Your task to perform on an android device: turn on javascript in the chrome app Image 0: 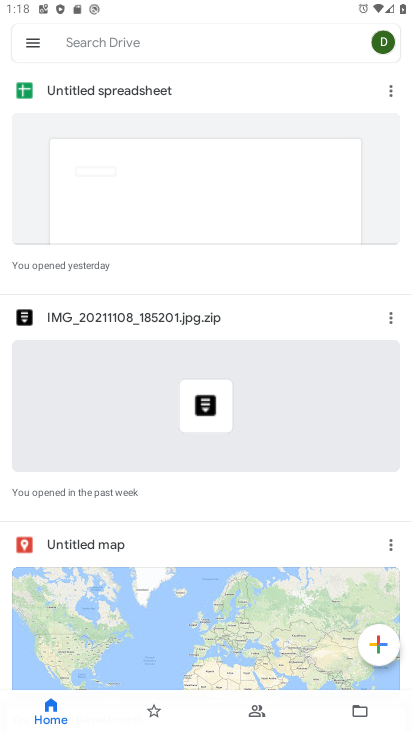
Step 0: press back button
Your task to perform on an android device: turn on javascript in the chrome app Image 1: 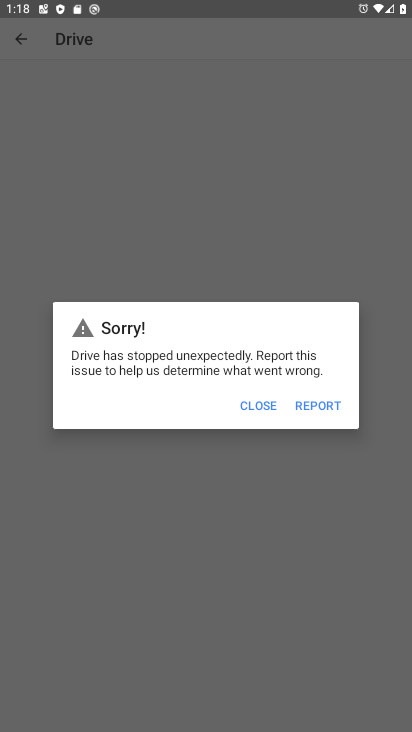
Step 1: press back button
Your task to perform on an android device: turn on javascript in the chrome app Image 2: 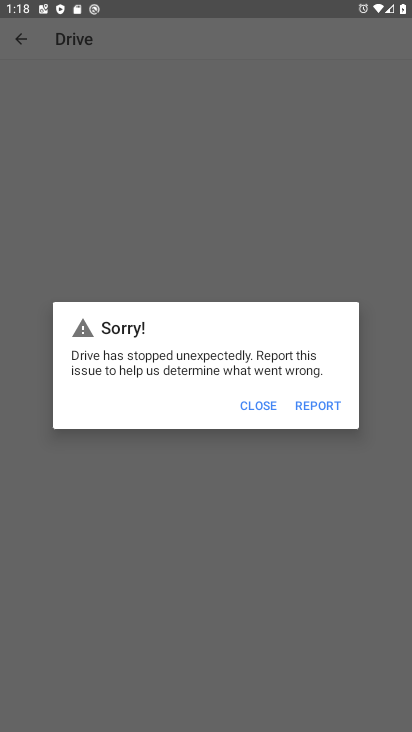
Step 2: drag from (283, 379) to (252, 37)
Your task to perform on an android device: turn on javascript in the chrome app Image 3: 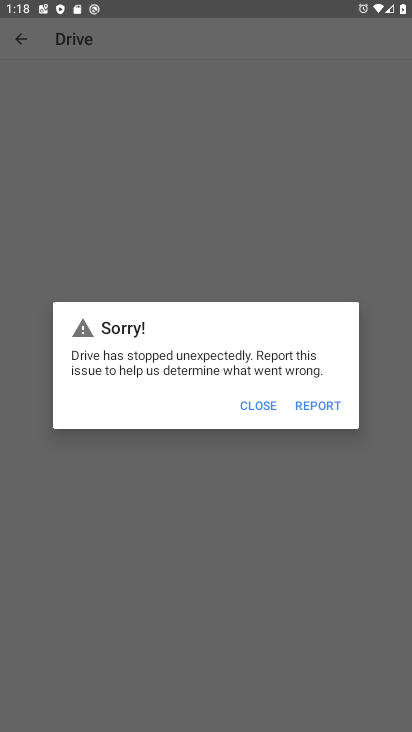
Step 3: drag from (265, 377) to (207, 148)
Your task to perform on an android device: turn on javascript in the chrome app Image 4: 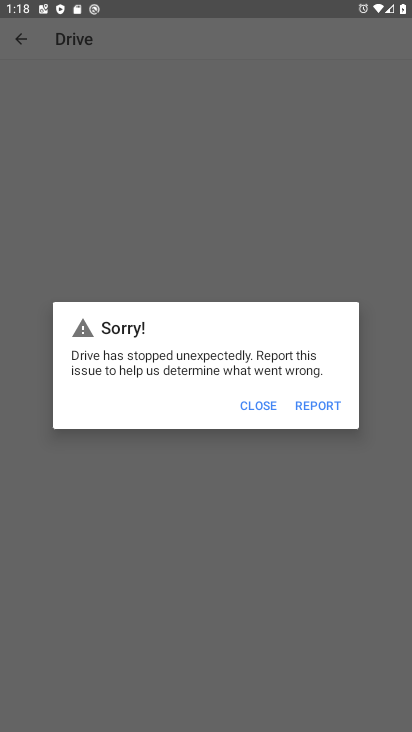
Step 4: drag from (246, 502) to (196, 9)
Your task to perform on an android device: turn on javascript in the chrome app Image 5: 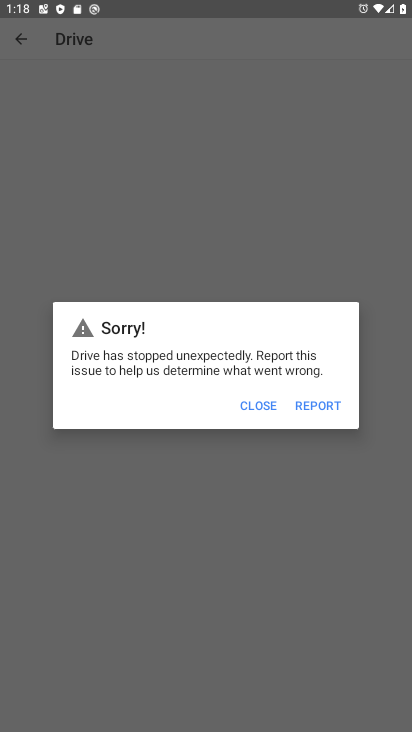
Step 5: drag from (322, 474) to (272, 2)
Your task to perform on an android device: turn on javascript in the chrome app Image 6: 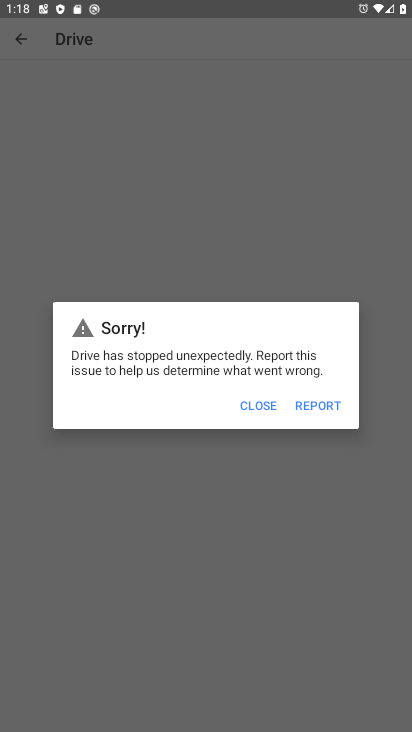
Step 6: drag from (345, 521) to (198, 7)
Your task to perform on an android device: turn on javascript in the chrome app Image 7: 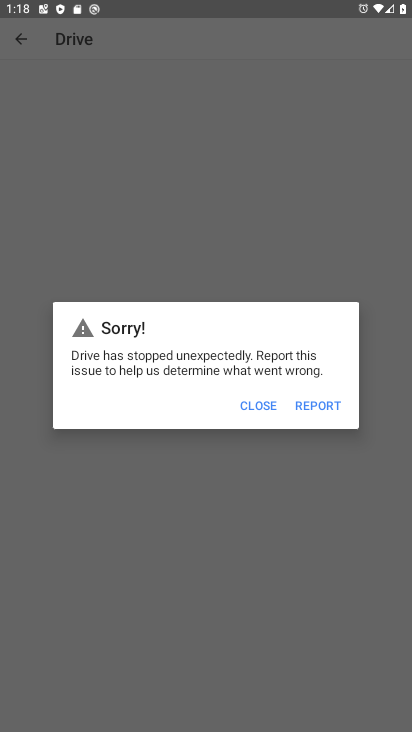
Step 7: drag from (254, 552) to (129, 73)
Your task to perform on an android device: turn on javascript in the chrome app Image 8: 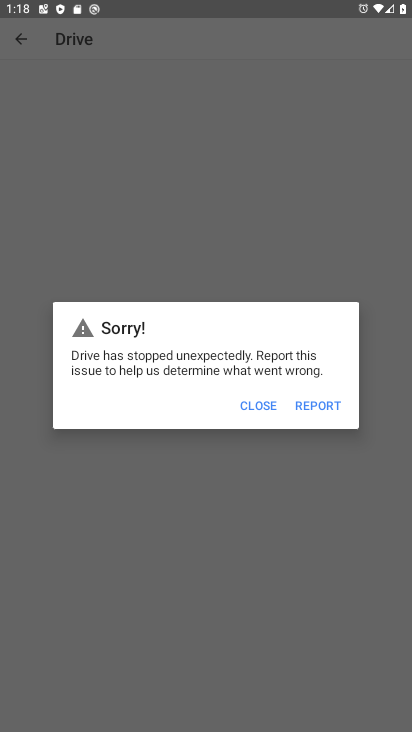
Step 8: click (248, 408)
Your task to perform on an android device: turn on javascript in the chrome app Image 9: 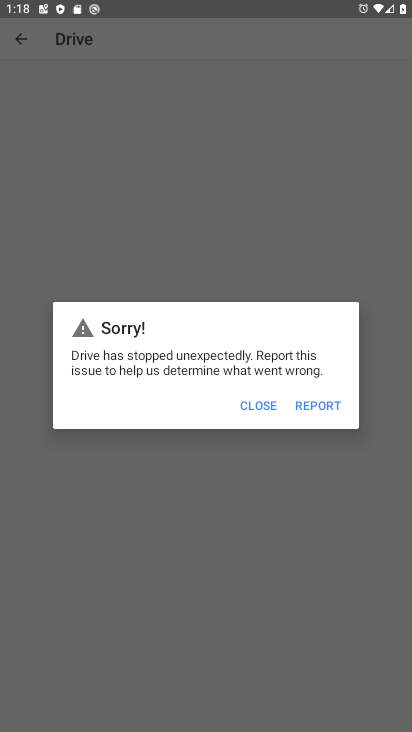
Step 9: click (248, 408)
Your task to perform on an android device: turn on javascript in the chrome app Image 10: 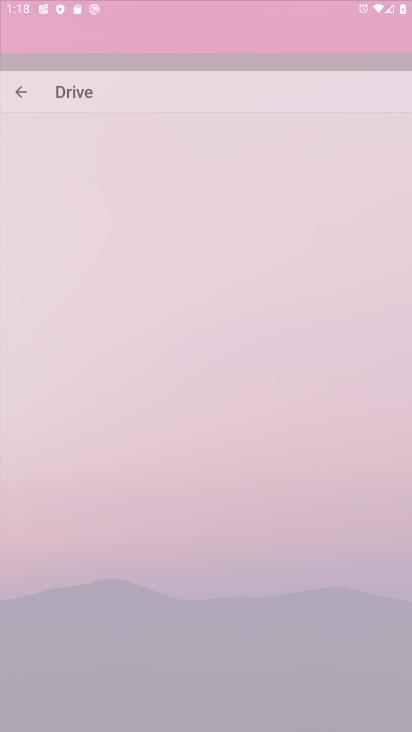
Step 10: click (249, 408)
Your task to perform on an android device: turn on javascript in the chrome app Image 11: 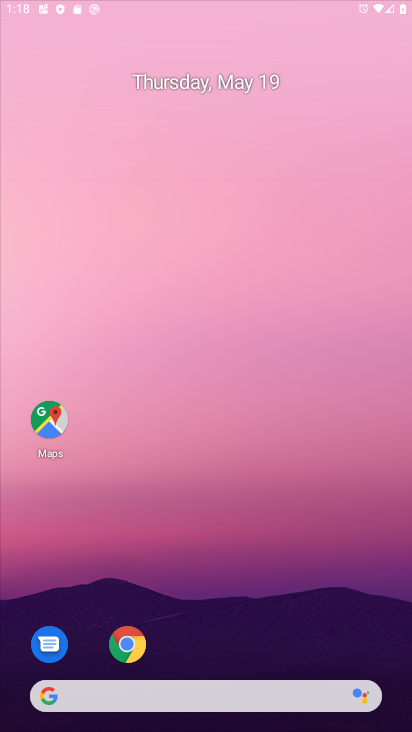
Step 11: click (249, 408)
Your task to perform on an android device: turn on javascript in the chrome app Image 12: 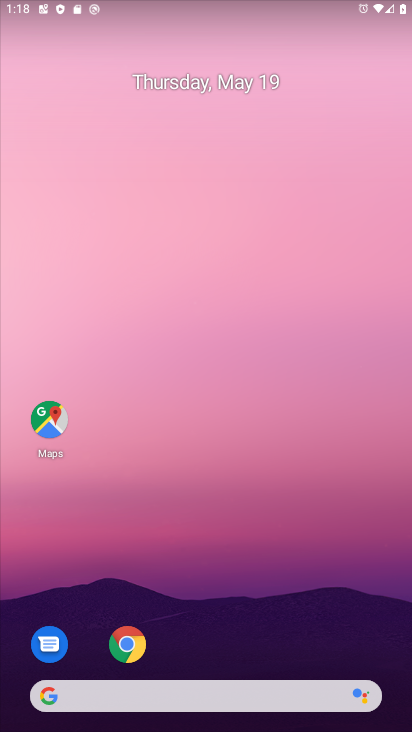
Step 12: drag from (232, 495) to (178, 7)
Your task to perform on an android device: turn on javascript in the chrome app Image 13: 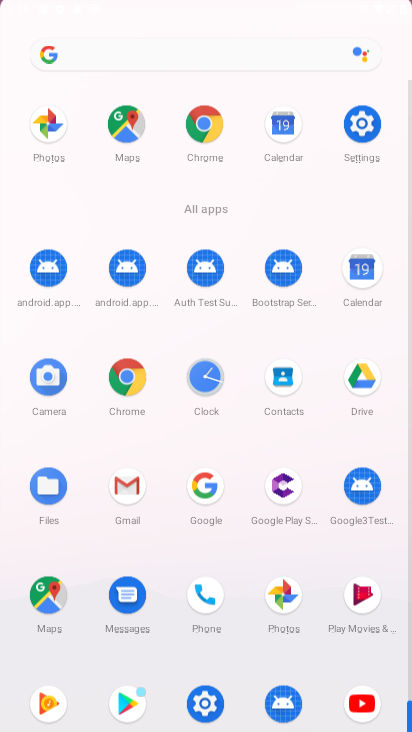
Step 13: drag from (267, 479) to (172, 11)
Your task to perform on an android device: turn on javascript in the chrome app Image 14: 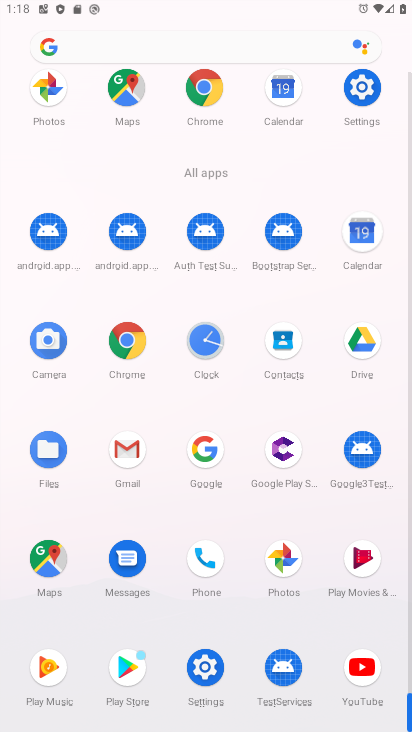
Step 14: click (362, 97)
Your task to perform on an android device: turn on javascript in the chrome app Image 15: 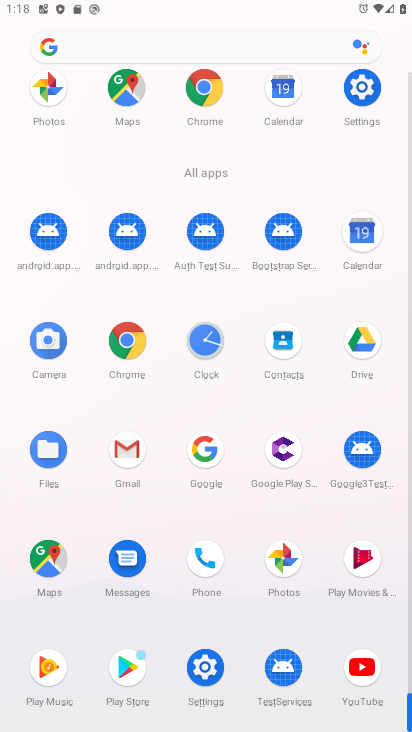
Step 15: click (361, 98)
Your task to perform on an android device: turn on javascript in the chrome app Image 16: 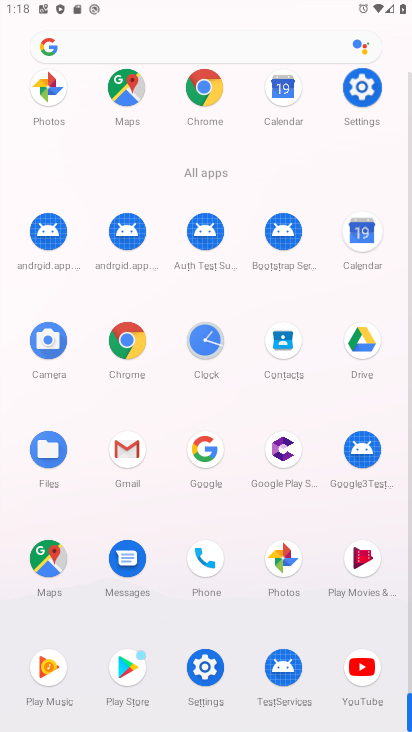
Step 16: click (363, 103)
Your task to perform on an android device: turn on javascript in the chrome app Image 17: 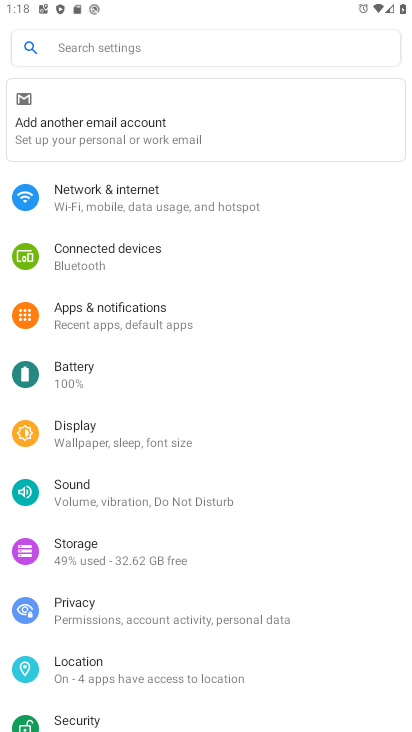
Step 17: drag from (89, 300) to (59, 74)
Your task to perform on an android device: turn on javascript in the chrome app Image 18: 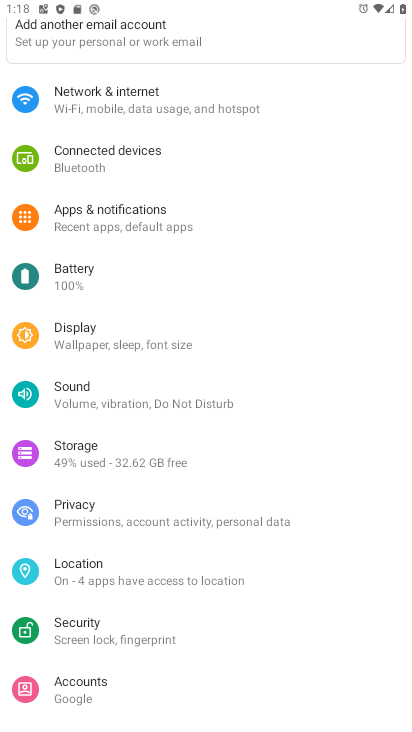
Step 18: drag from (181, 404) to (188, 124)
Your task to perform on an android device: turn on javascript in the chrome app Image 19: 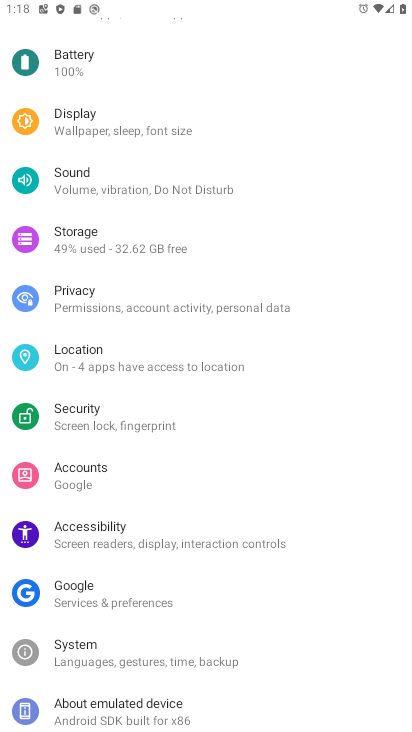
Step 19: press home button
Your task to perform on an android device: turn on javascript in the chrome app Image 20: 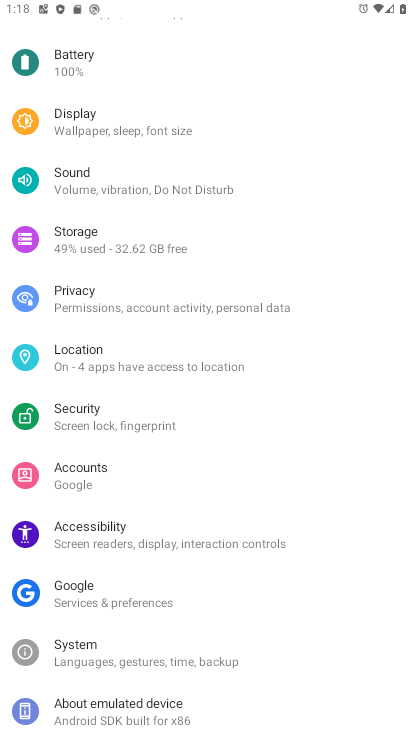
Step 20: press home button
Your task to perform on an android device: turn on javascript in the chrome app Image 21: 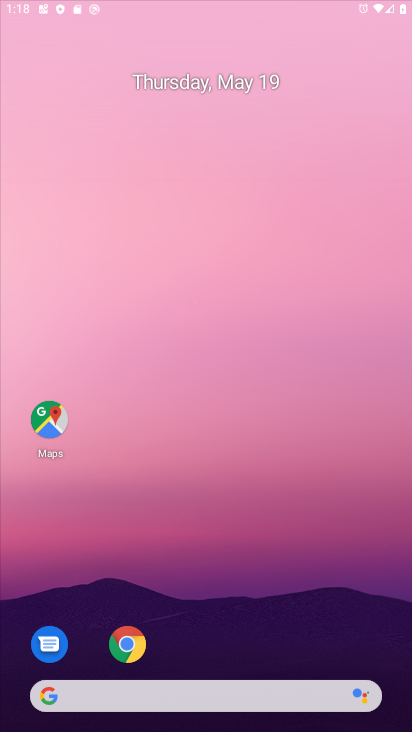
Step 21: press home button
Your task to perform on an android device: turn on javascript in the chrome app Image 22: 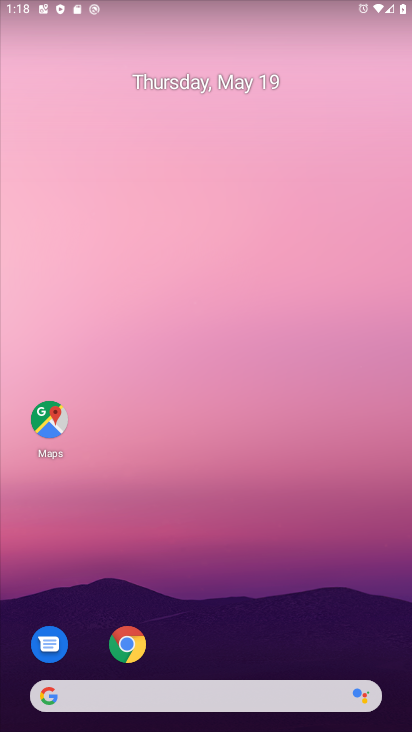
Step 22: drag from (211, 545) to (114, 47)
Your task to perform on an android device: turn on javascript in the chrome app Image 23: 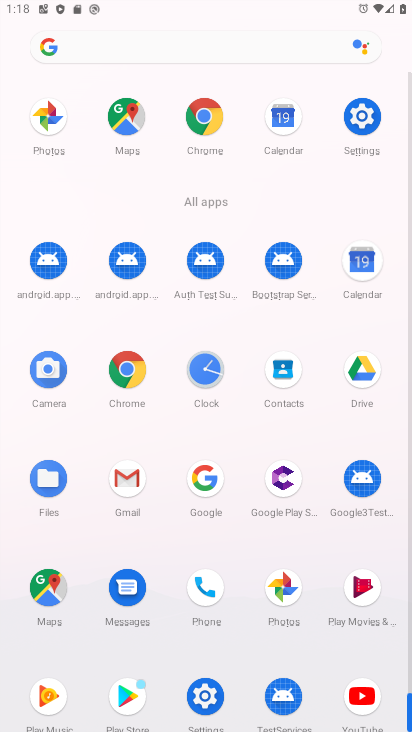
Step 23: click (198, 116)
Your task to perform on an android device: turn on javascript in the chrome app Image 24: 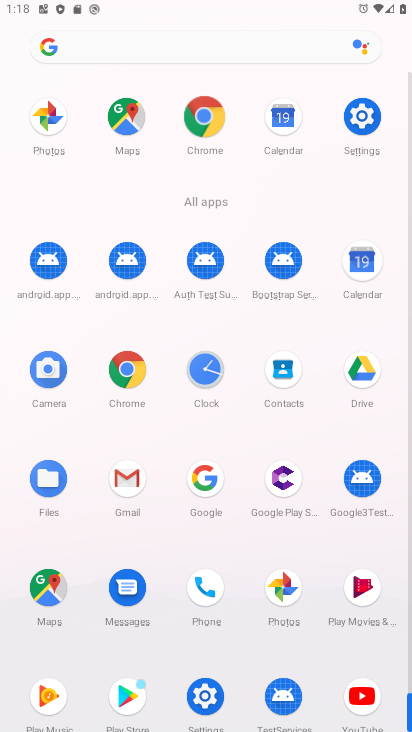
Step 24: click (198, 116)
Your task to perform on an android device: turn on javascript in the chrome app Image 25: 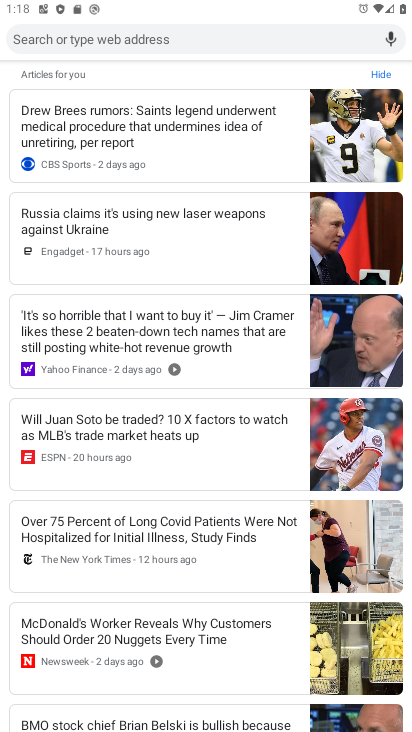
Step 25: click (201, 119)
Your task to perform on an android device: turn on javascript in the chrome app Image 26: 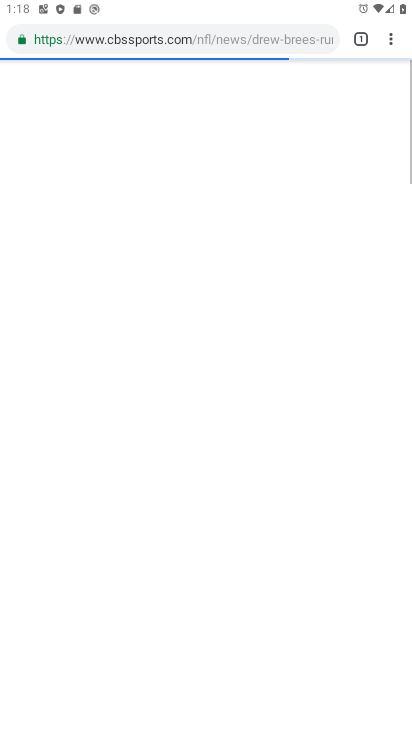
Step 26: drag from (131, 218) to (199, 530)
Your task to perform on an android device: turn on javascript in the chrome app Image 27: 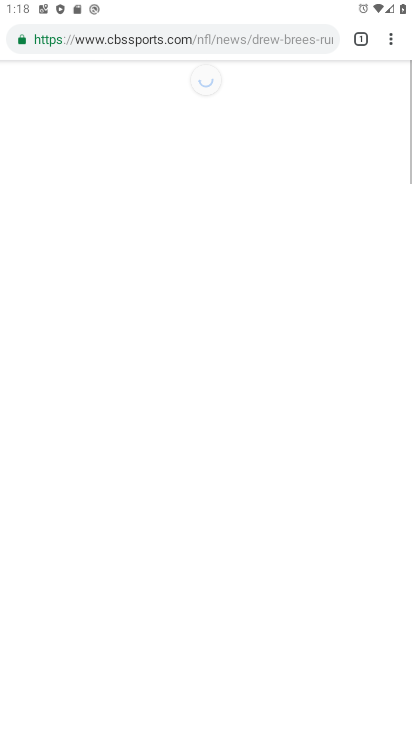
Step 27: drag from (107, 181) to (214, 531)
Your task to perform on an android device: turn on javascript in the chrome app Image 28: 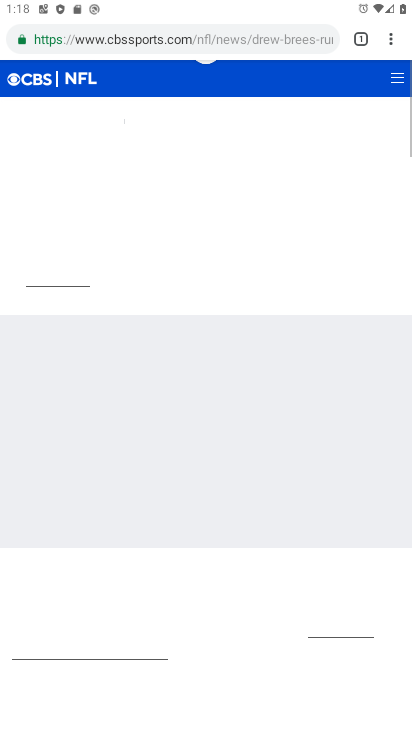
Step 28: drag from (154, 259) to (200, 553)
Your task to perform on an android device: turn on javascript in the chrome app Image 29: 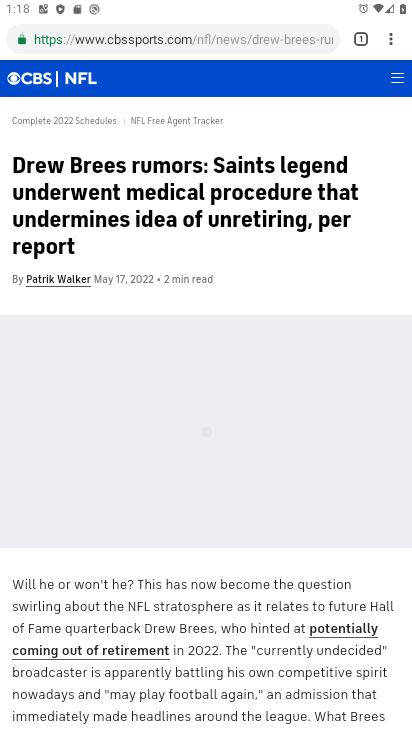
Step 29: drag from (138, 275) to (215, 551)
Your task to perform on an android device: turn on javascript in the chrome app Image 30: 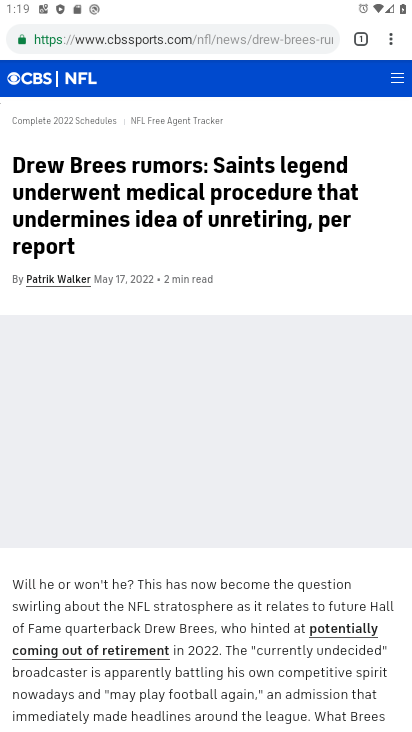
Step 30: drag from (179, 228) to (232, 533)
Your task to perform on an android device: turn on javascript in the chrome app Image 31: 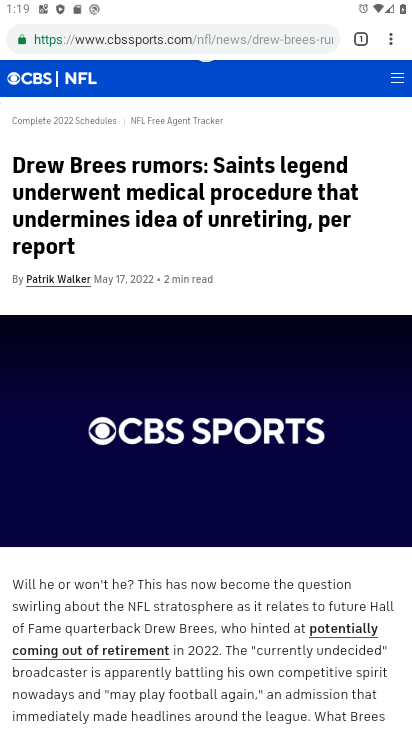
Step 31: drag from (178, 319) to (211, 476)
Your task to perform on an android device: turn on javascript in the chrome app Image 32: 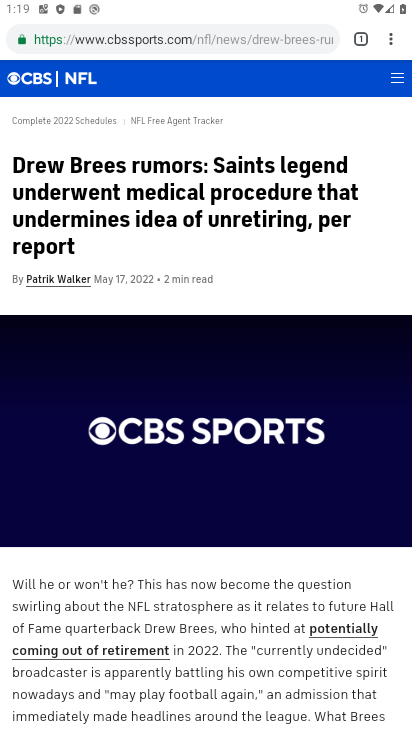
Step 32: drag from (116, 188) to (167, 512)
Your task to perform on an android device: turn on javascript in the chrome app Image 33: 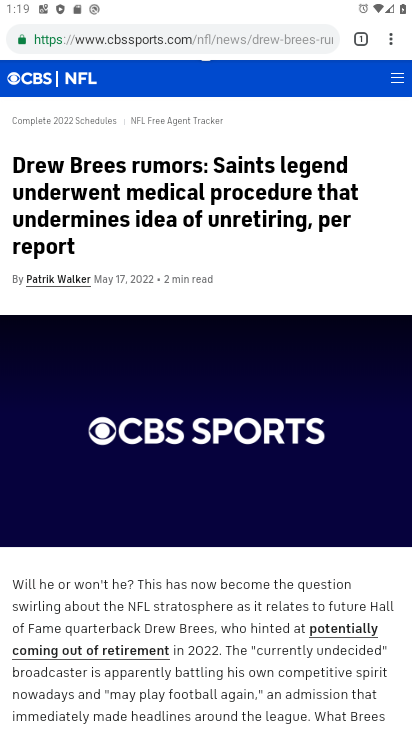
Step 33: drag from (225, 564) to (197, 479)
Your task to perform on an android device: turn on javascript in the chrome app Image 34: 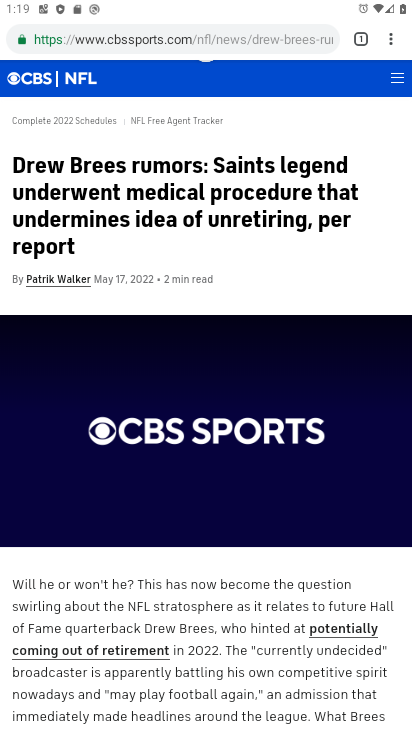
Step 34: drag from (135, 246) to (199, 474)
Your task to perform on an android device: turn on javascript in the chrome app Image 35: 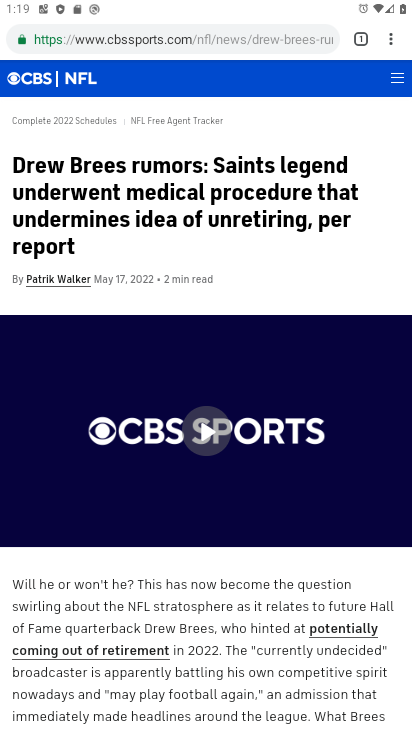
Step 35: drag from (220, 402) to (254, 519)
Your task to perform on an android device: turn on javascript in the chrome app Image 36: 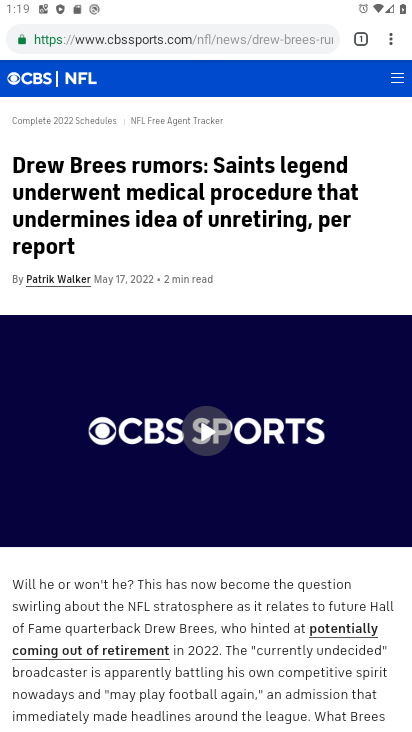
Step 36: drag from (197, 163) to (191, 464)
Your task to perform on an android device: turn on javascript in the chrome app Image 37: 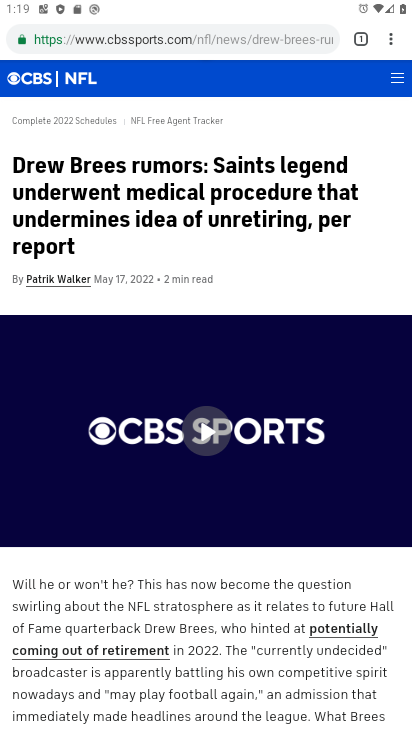
Step 37: drag from (284, 526) to (248, 434)
Your task to perform on an android device: turn on javascript in the chrome app Image 38: 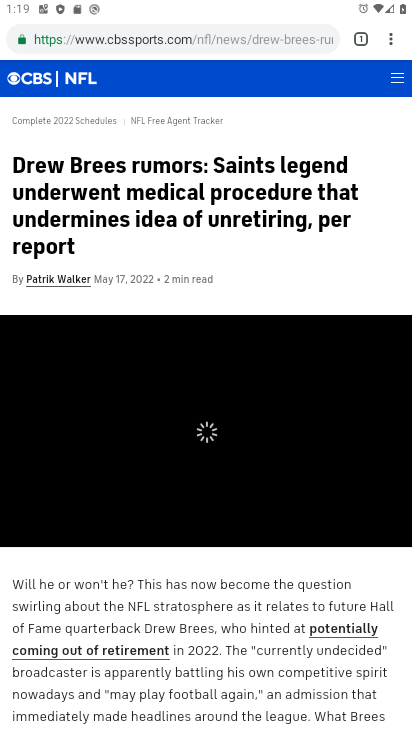
Step 38: drag from (175, 344) to (216, 464)
Your task to perform on an android device: turn on javascript in the chrome app Image 39: 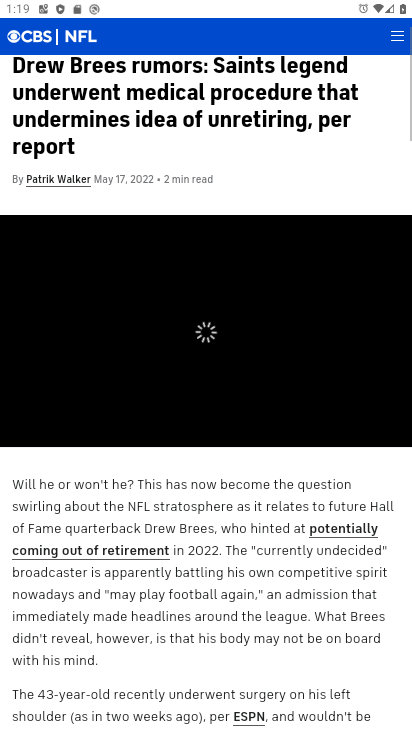
Step 39: drag from (206, 192) to (285, 486)
Your task to perform on an android device: turn on javascript in the chrome app Image 40: 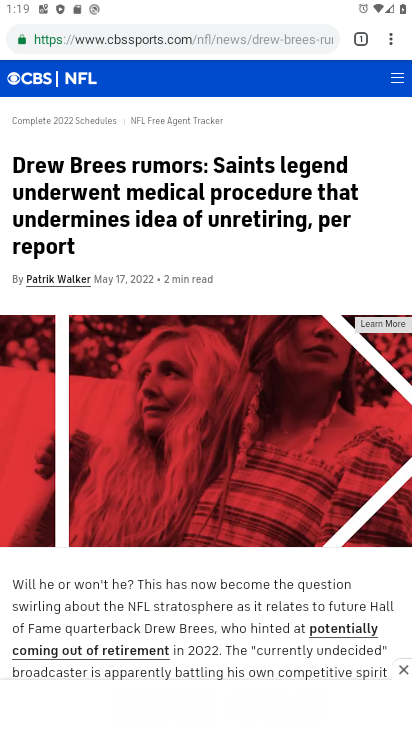
Step 40: press back button
Your task to perform on an android device: turn on javascript in the chrome app Image 41: 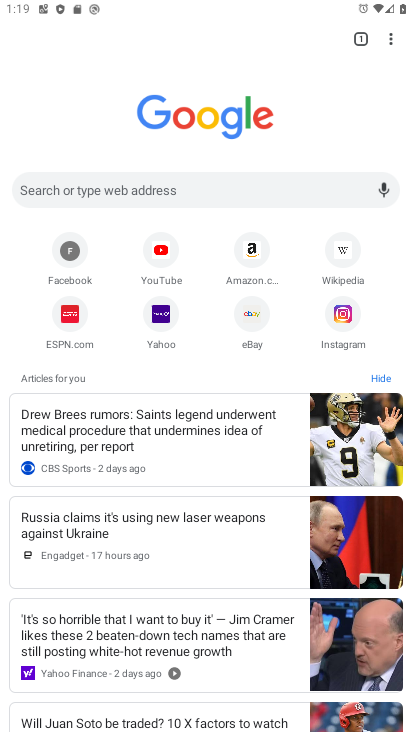
Step 41: drag from (390, 46) to (250, 323)
Your task to perform on an android device: turn on javascript in the chrome app Image 42: 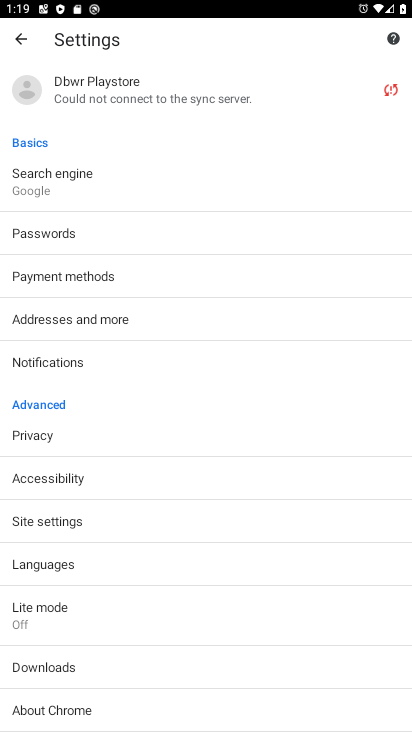
Step 42: click (39, 521)
Your task to perform on an android device: turn on javascript in the chrome app Image 43: 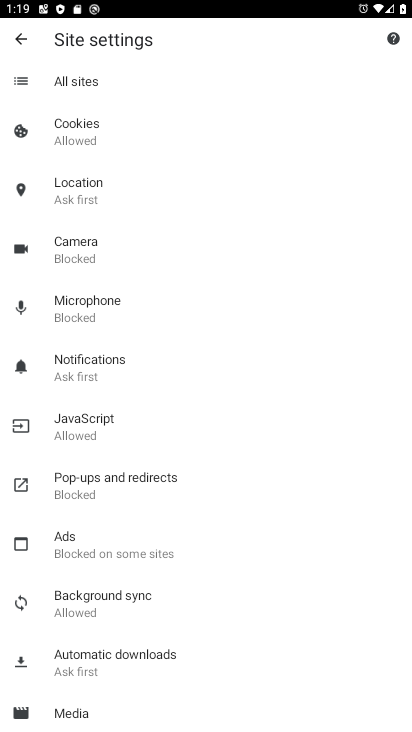
Step 43: click (76, 430)
Your task to perform on an android device: turn on javascript in the chrome app Image 44: 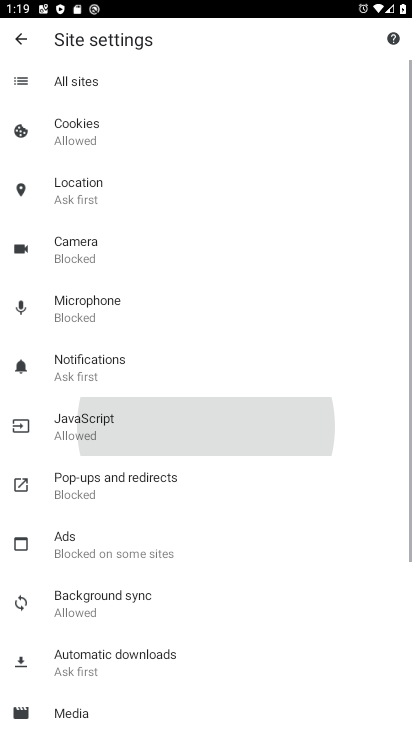
Step 44: click (76, 430)
Your task to perform on an android device: turn on javascript in the chrome app Image 45: 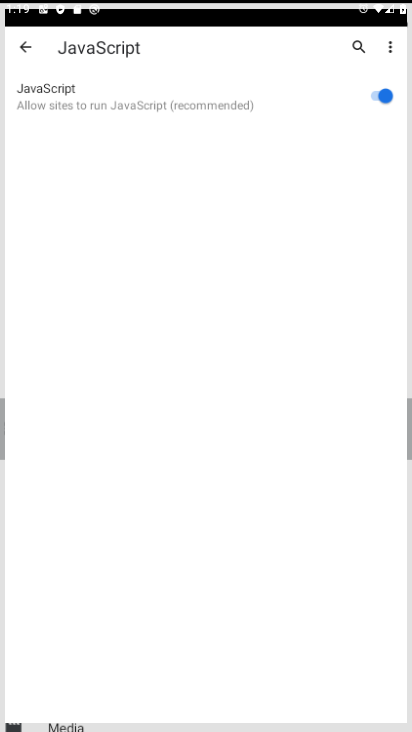
Step 45: click (76, 430)
Your task to perform on an android device: turn on javascript in the chrome app Image 46: 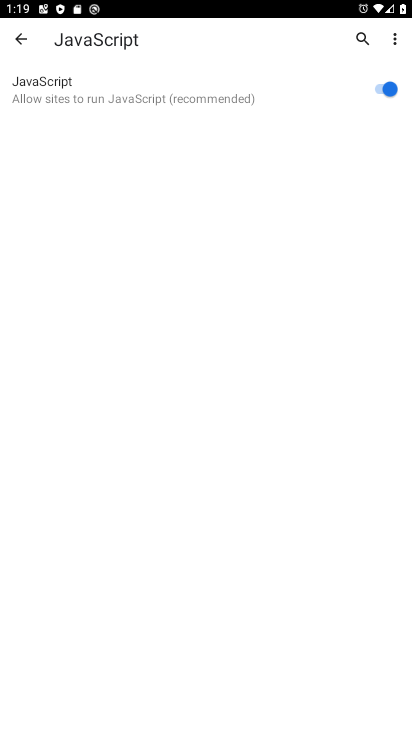
Step 46: click (76, 430)
Your task to perform on an android device: turn on javascript in the chrome app Image 47: 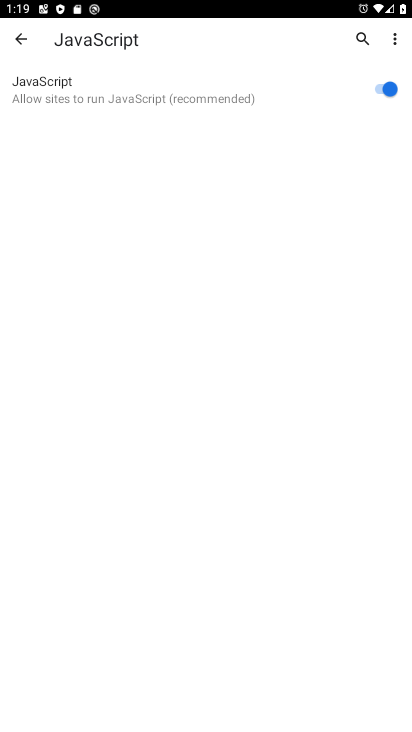
Step 47: click (80, 431)
Your task to perform on an android device: turn on javascript in the chrome app Image 48: 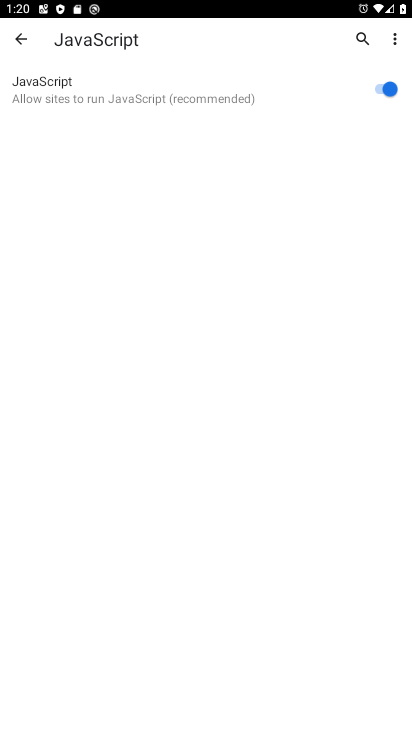
Step 48: click (15, 35)
Your task to perform on an android device: turn on javascript in the chrome app Image 49: 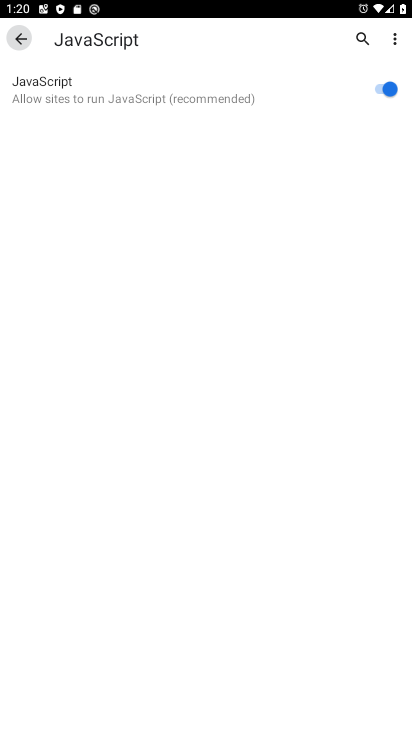
Step 49: click (15, 36)
Your task to perform on an android device: turn on javascript in the chrome app Image 50: 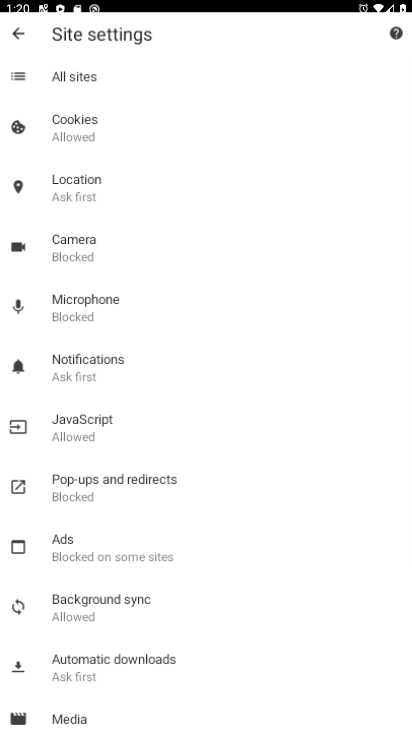
Step 50: click (15, 36)
Your task to perform on an android device: turn on javascript in the chrome app Image 51: 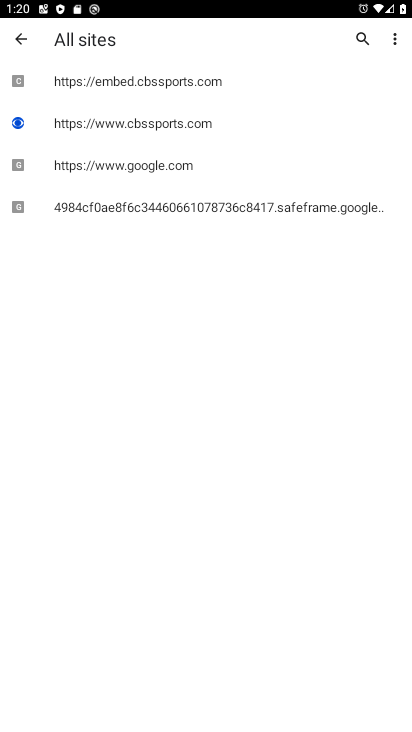
Step 51: click (8, 18)
Your task to perform on an android device: turn on javascript in the chrome app Image 52: 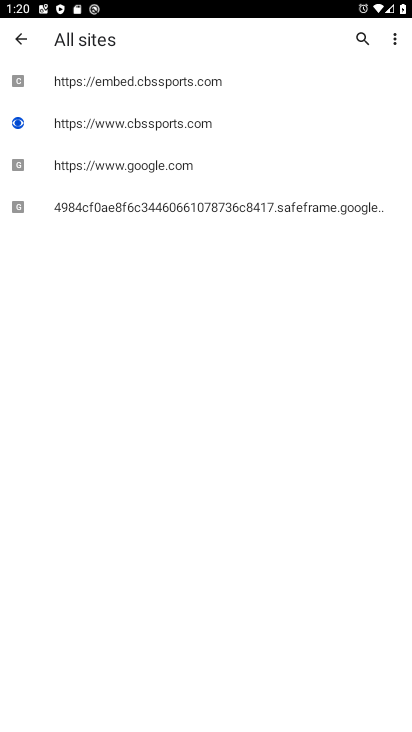
Step 52: click (18, 34)
Your task to perform on an android device: turn on javascript in the chrome app Image 53: 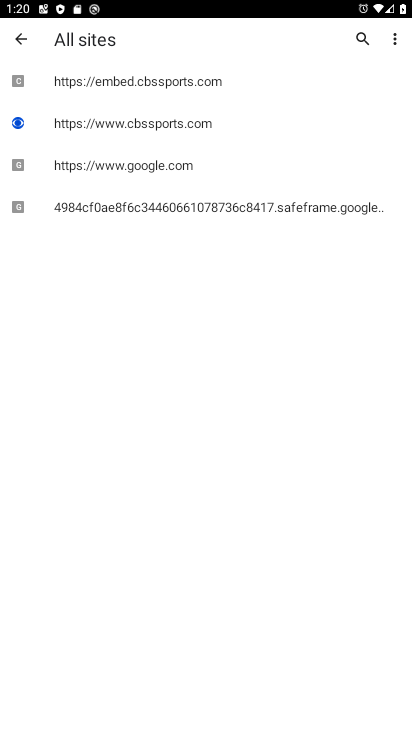
Step 53: click (18, 38)
Your task to perform on an android device: turn on javascript in the chrome app Image 54: 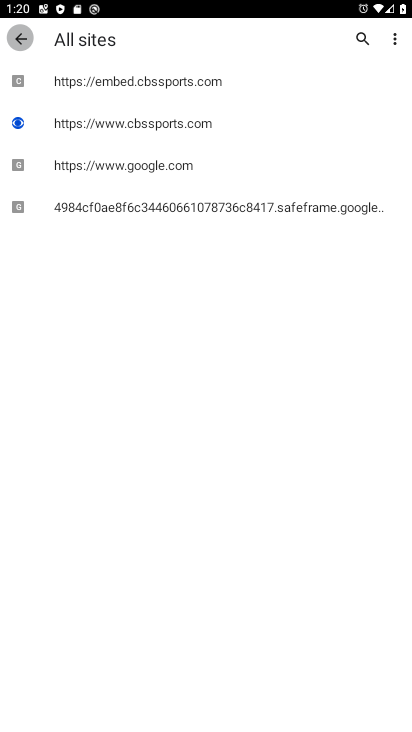
Step 54: click (18, 38)
Your task to perform on an android device: turn on javascript in the chrome app Image 55: 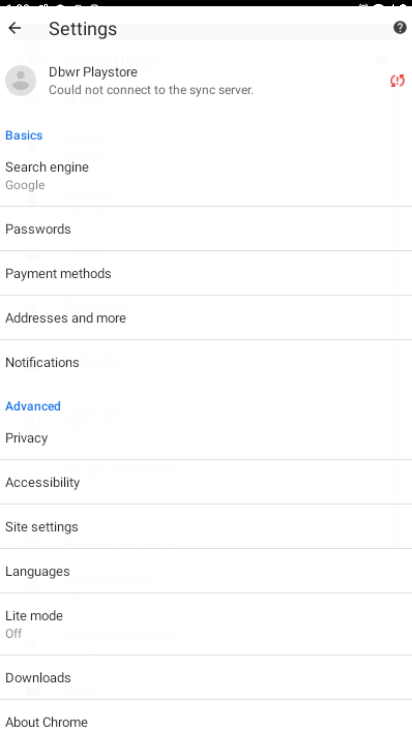
Step 55: click (20, 39)
Your task to perform on an android device: turn on javascript in the chrome app Image 56: 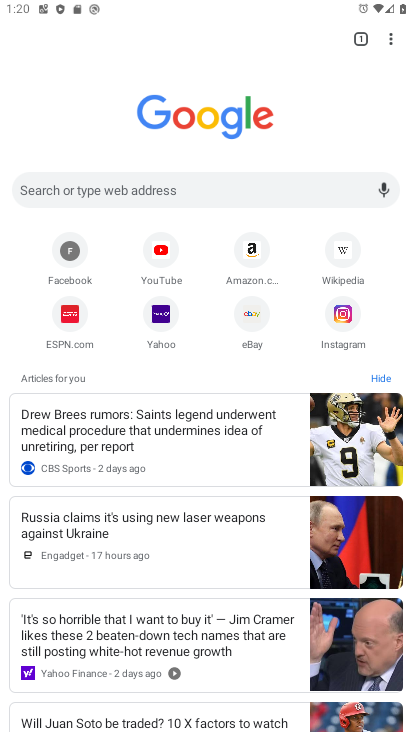
Step 56: press back button
Your task to perform on an android device: turn on javascript in the chrome app Image 57: 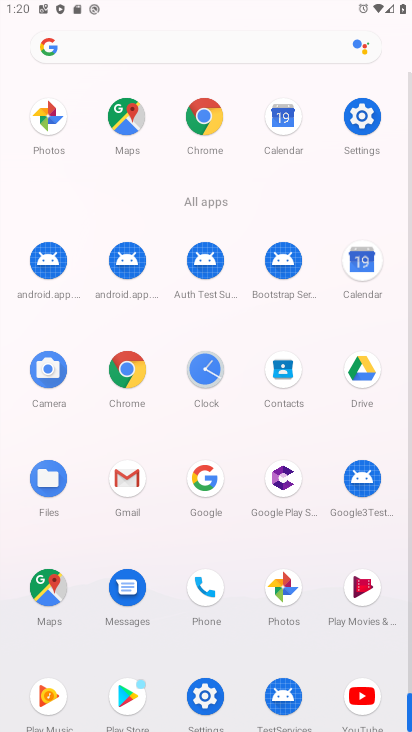
Step 57: click (349, 116)
Your task to perform on an android device: turn on javascript in the chrome app Image 58: 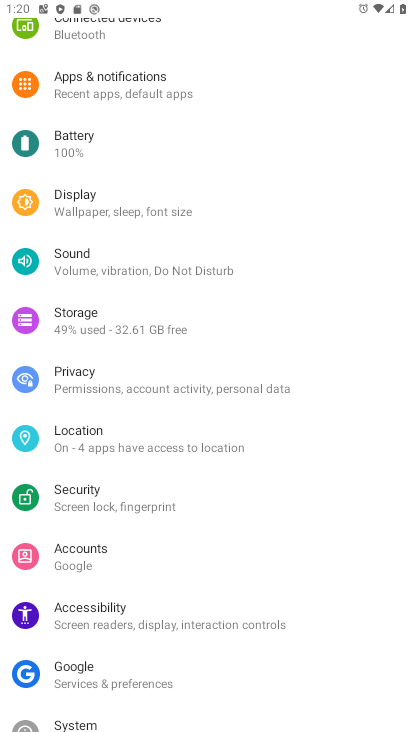
Step 58: drag from (313, 413) to (188, 2)
Your task to perform on an android device: turn on javascript in the chrome app Image 59: 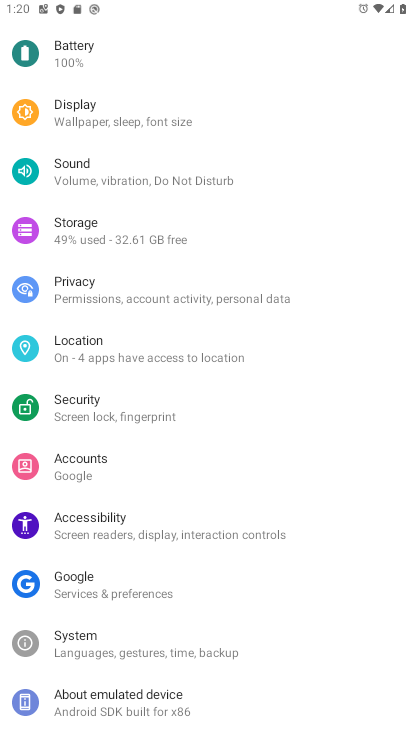
Step 59: press home button
Your task to perform on an android device: turn on javascript in the chrome app Image 60: 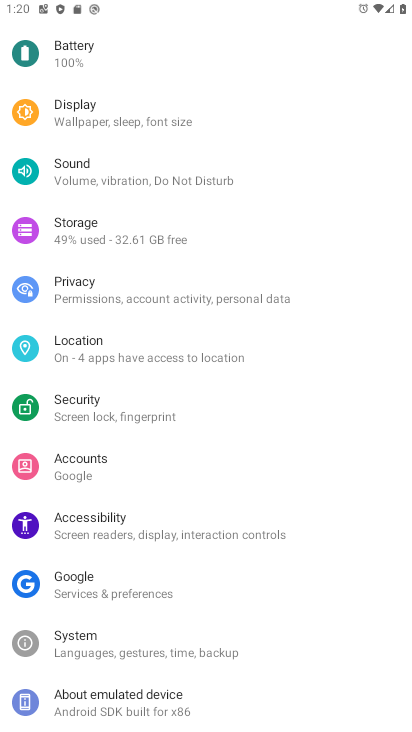
Step 60: press home button
Your task to perform on an android device: turn on javascript in the chrome app Image 61: 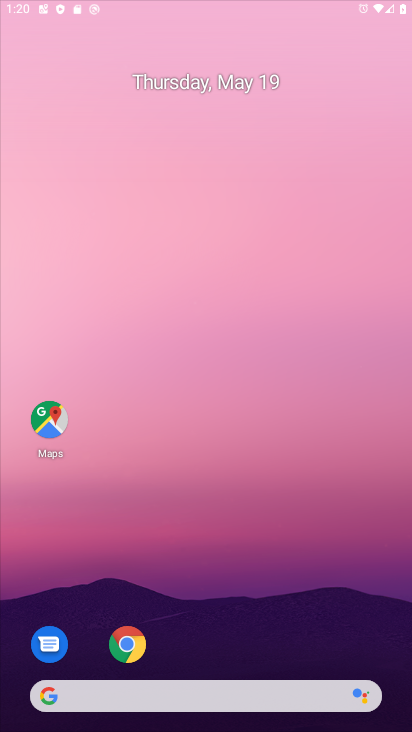
Step 61: press home button
Your task to perform on an android device: turn on javascript in the chrome app Image 62: 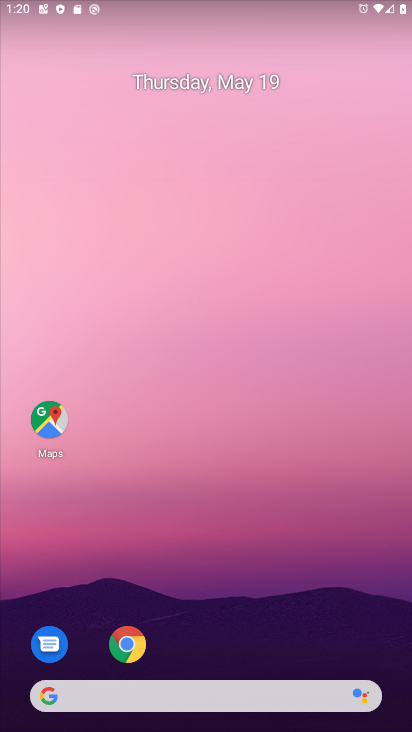
Step 62: drag from (269, 642) to (104, 54)
Your task to perform on an android device: turn on javascript in the chrome app Image 63: 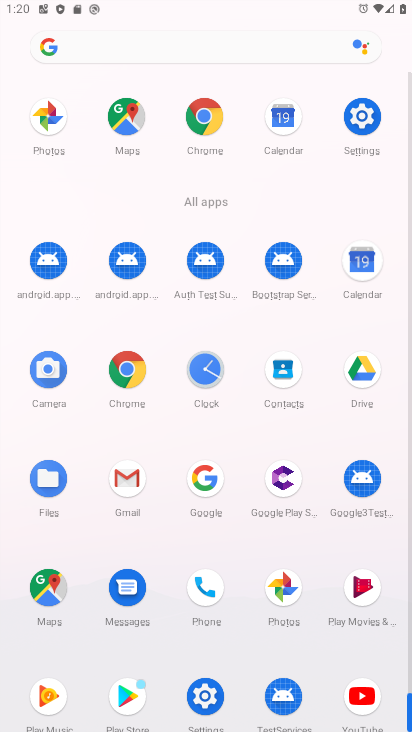
Step 63: click (130, 367)
Your task to perform on an android device: turn on javascript in the chrome app Image 64: 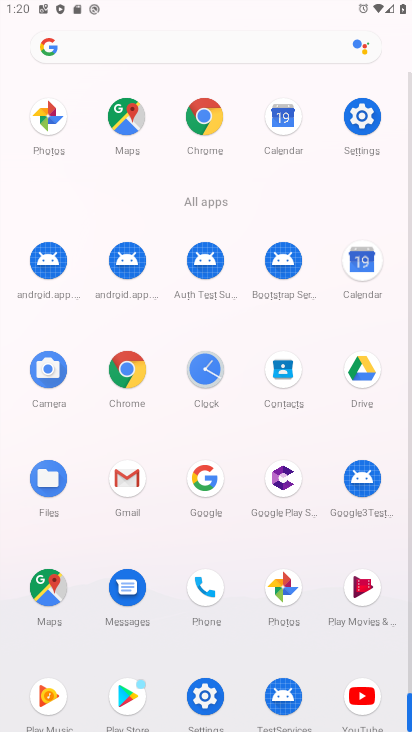
Step 64: click (129, 368)
Your task to perform on an android device: turn on javascript in the chrome app Image 65: 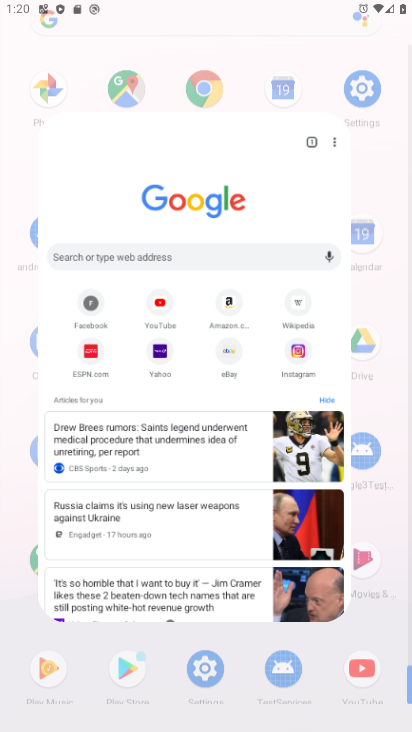
Step 65: click (133, 369)
Your task to perform on an android device: turn on javascript in the chrome app Image 66: 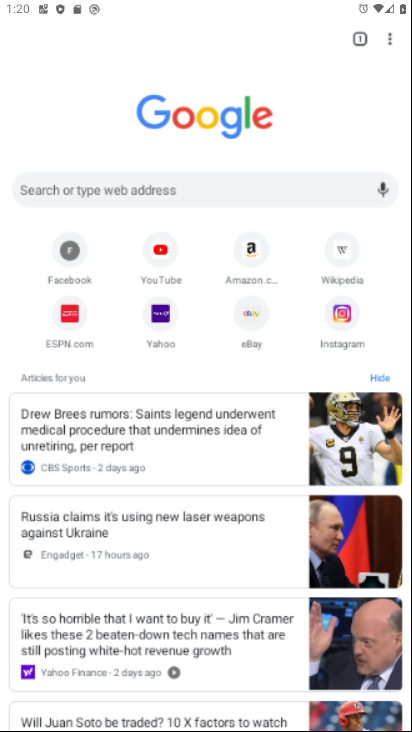
Step 66: click (134, 364)
Your task to perform on an android device: turn on javascript in the chrome app Image 67: 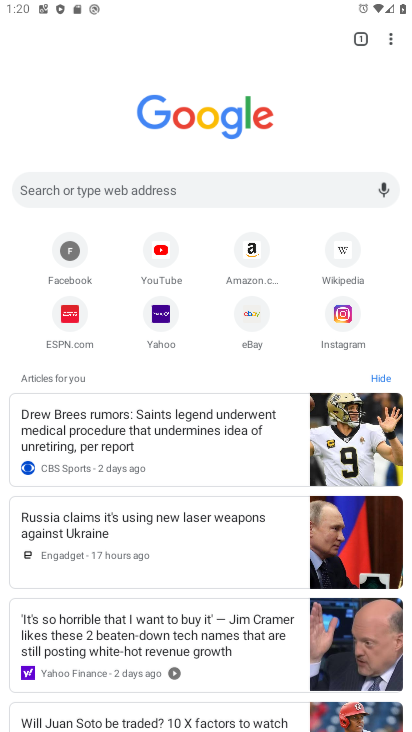
Step 67: click (134, 364)
Your task to perform on an android device: turn on javascript in the chrome app Image 68: 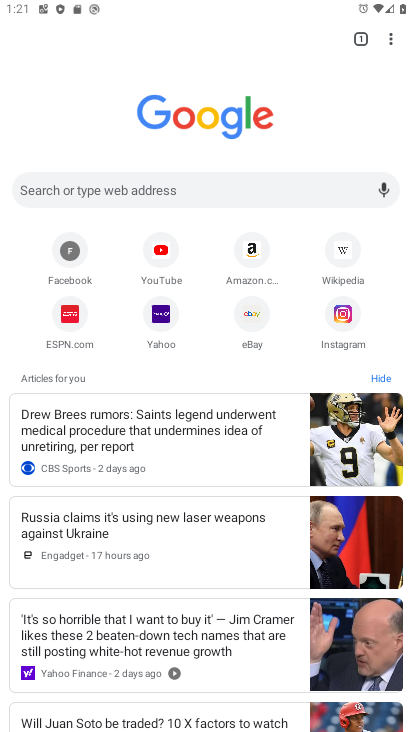
Step 68: drag from (390, 41) to (251, 331)
Your task to perform on an android device: turn on javascript in the chrome app Image 69: 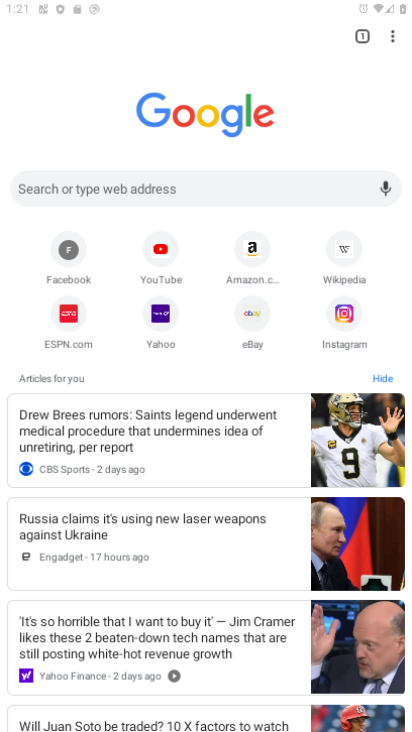
Step 69: click (251, 333)
Your task to perform on an android device: turn on javascript in the chrome app Image 70: 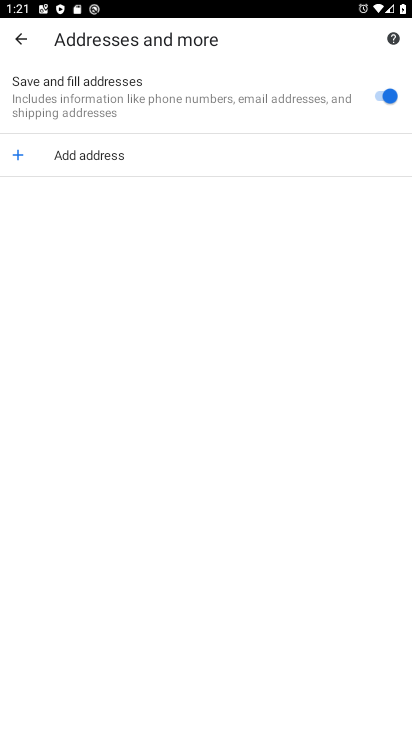
Step 70: click (14, 36)
Your task to perform on an android device: turn on javascript in the chrome app Image 71: 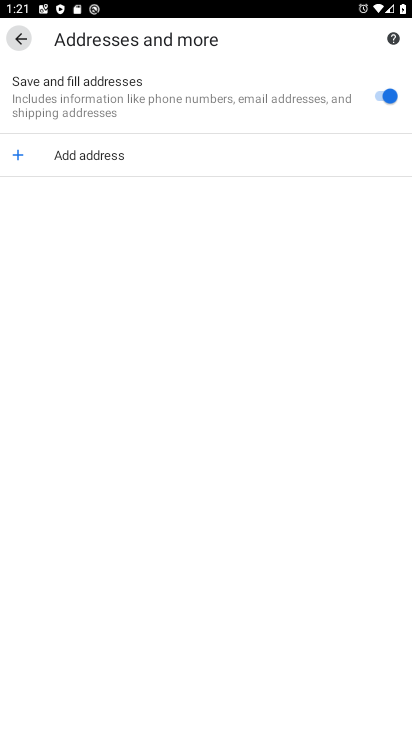
Step 71: click (14, 38)
Your task to perform on an android device: turn on javascript in the chrome app Image 72: 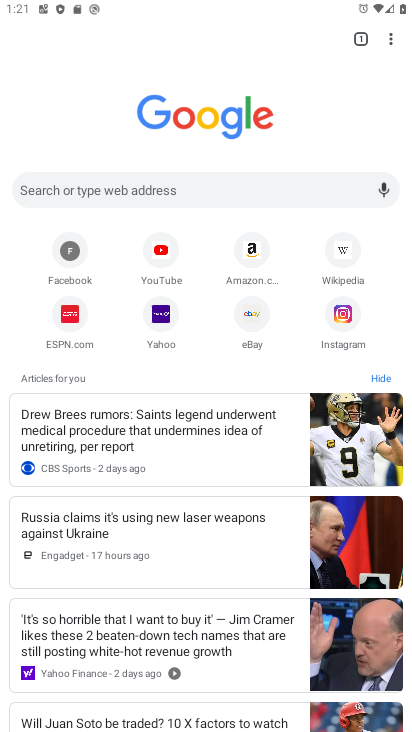
Step 72: click (390, 43)
Your task to perform on an android device: turn on javascript in the chrome app Image 73: 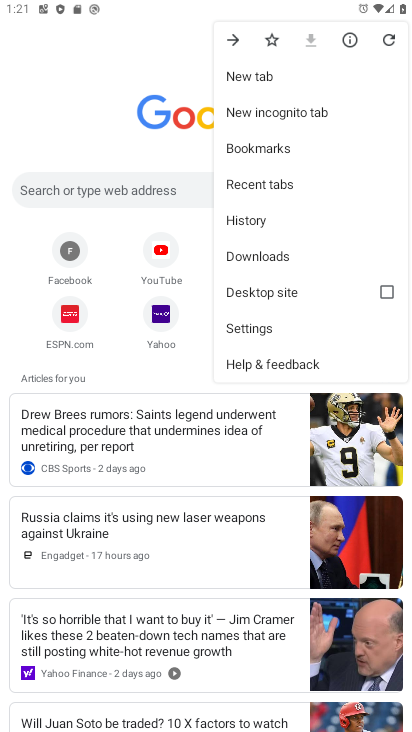
Step 73: click (253, 328)
Your task to perform on an android device: turn on javascript in the chrome app Image 74: 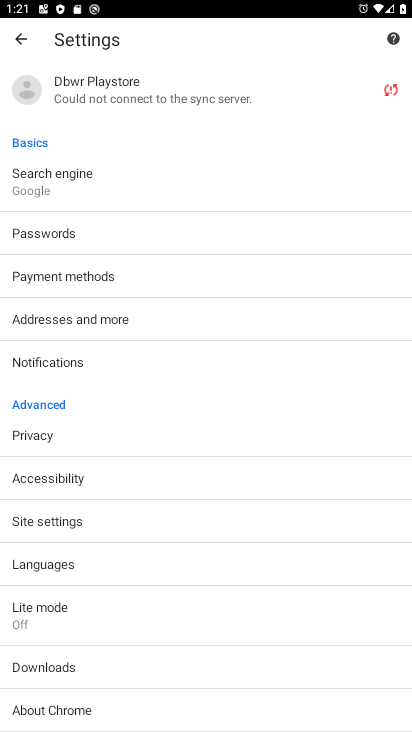
Step 74: click (35, 520)
Your task to perform on an android device: turn on javascript in the chrome app Image 75: 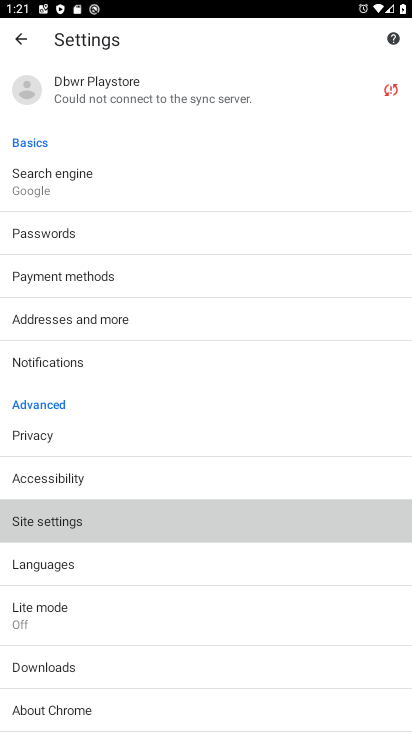
Step 75: click (35, 519)
Your task to perform on an android device: turn on javascript in the chrome app Image 76: 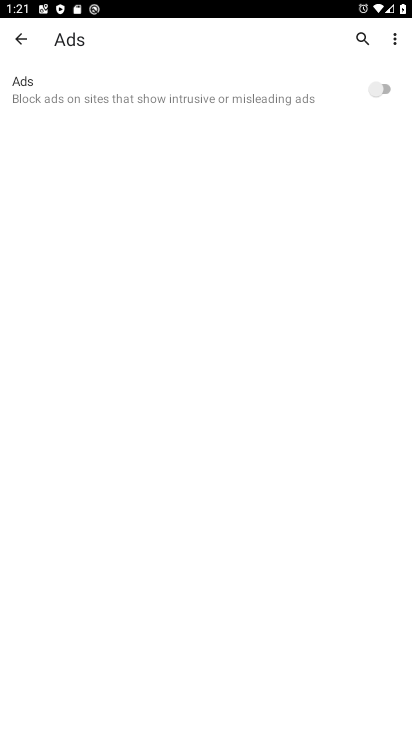
Step 76: click (16, 44)
Your task to perform on an android device: turn on javascript in the chrome app Image 77: 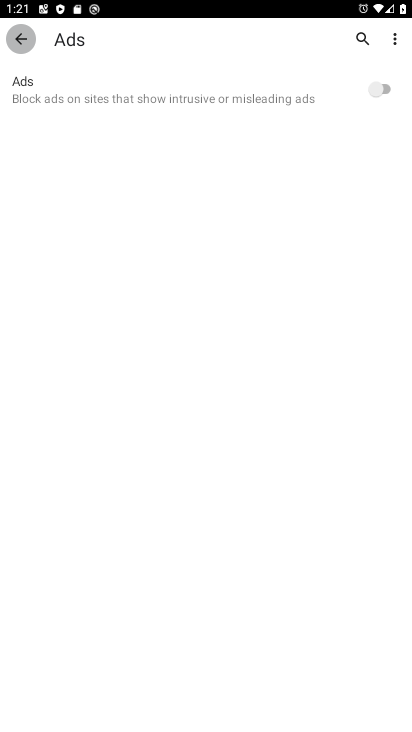
Step 77: click (25, 37)
Your task to perform on an android device: turn on javascript in the chrome app Image 78: 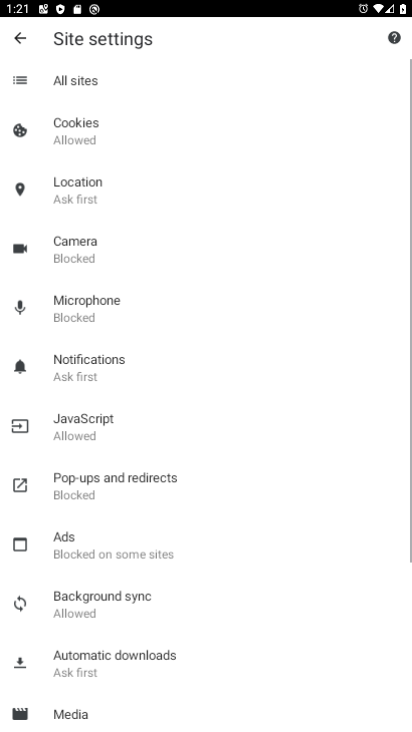
Step 78: click (25, 37)
Your task to perform on an android device: turn on javascript in the chrome app Image 79: 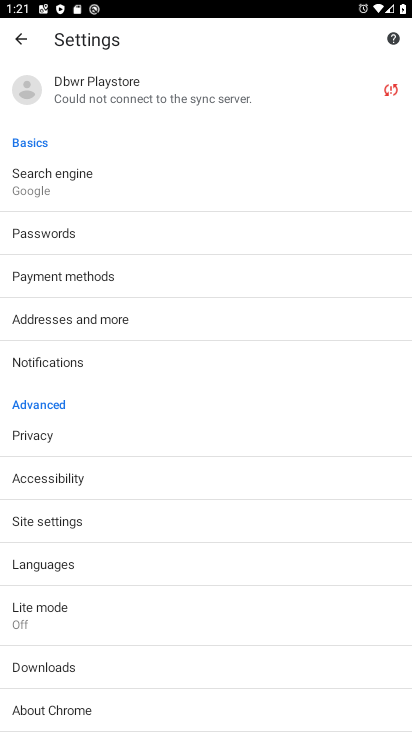
Step 79: click (43, 525)
Your task to perform on an android device: turn on javascript in the chrome app Image 80: 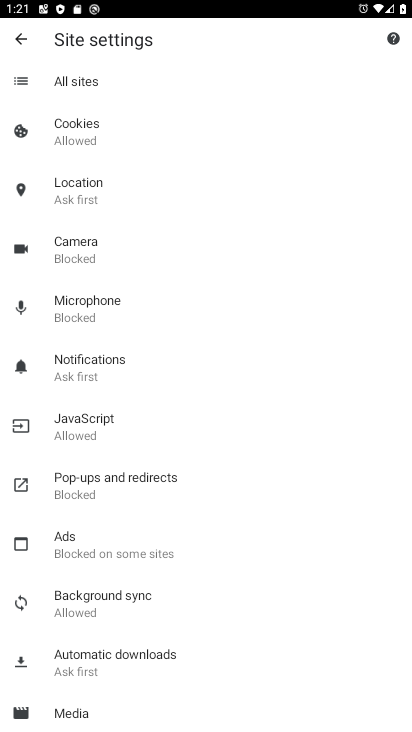
Step 80: click (83, 418)
Your task to perform on an android device: turn on javascript in the chrome app Image 81: 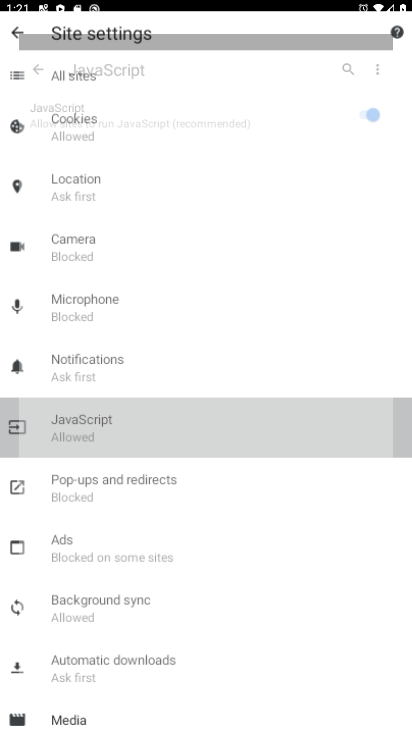
Step 81: click (83, 418)
Your task to perform on an android device: turn on javascript in the chrome app Image 82: 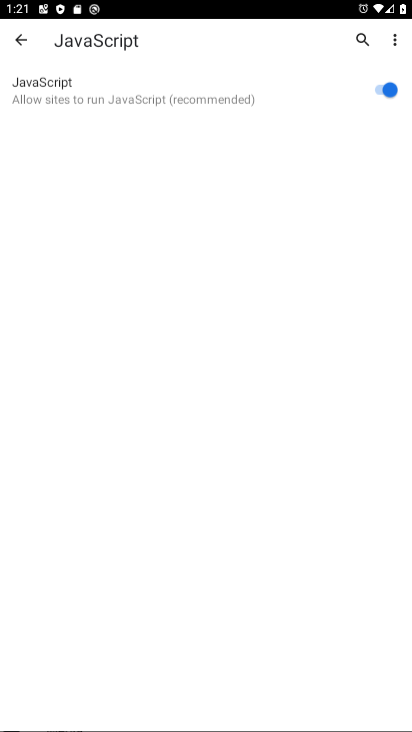
Step 82: click (83, 418)
Your task to perform on an android device: turn on javascript in the chrome app Image 83: 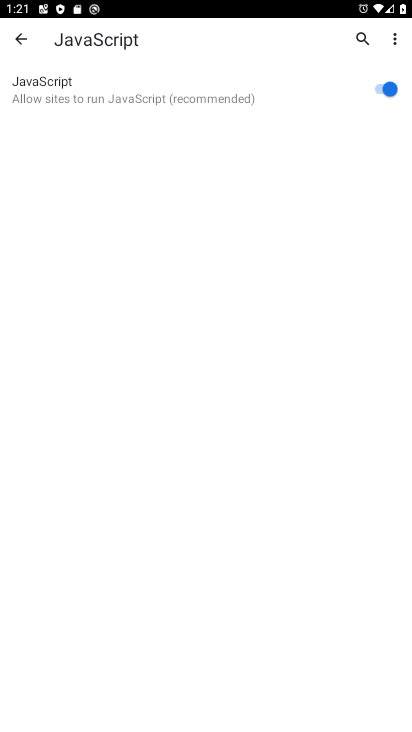
Step 83: task complete